Your task to perform on an android device: What is the recent news? Image 0: 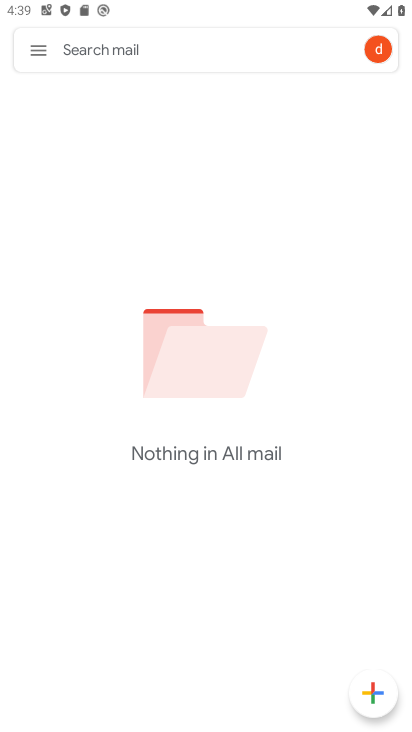
Step 0: press back button
Your task to perform on an android device: What is the recent news? Image 1: 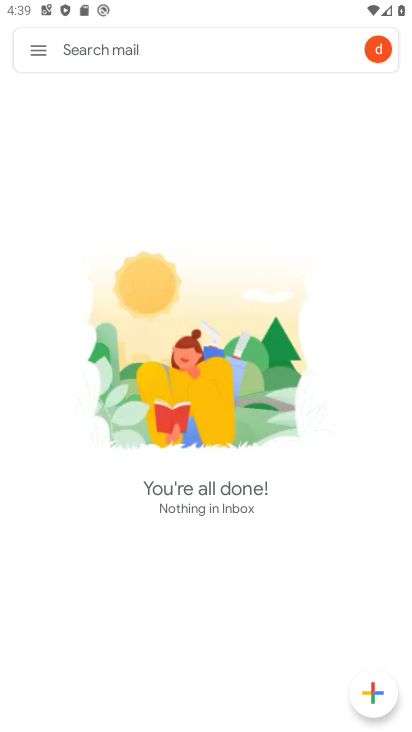
Step 1: press back button
Your task to perform on an android device: What is the recent news? Image 2: 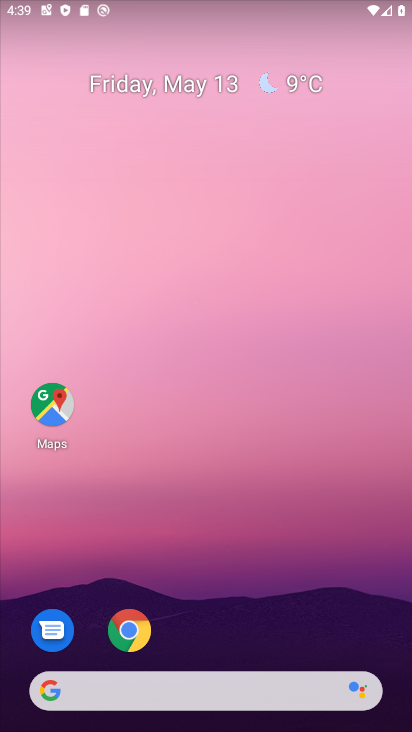
Step 2: drag from (160, 99) to (154, 57)
Your task to perform on an android device: What is the recent news? Image 3: 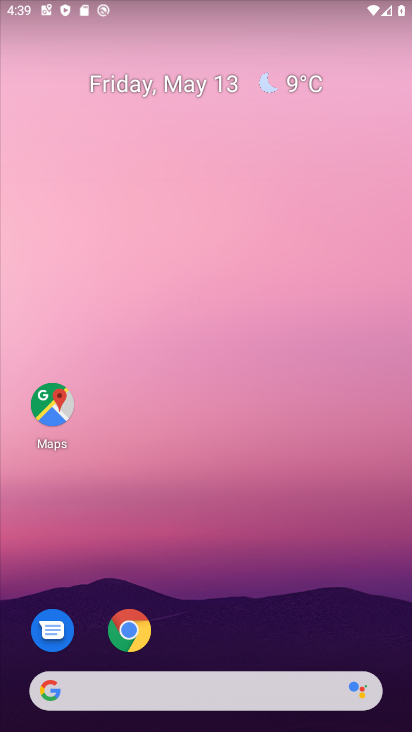
Step 3: drag from (319, 560) to (287, 41)
Your task to perform on an android device: What is the recent news? Image 4: 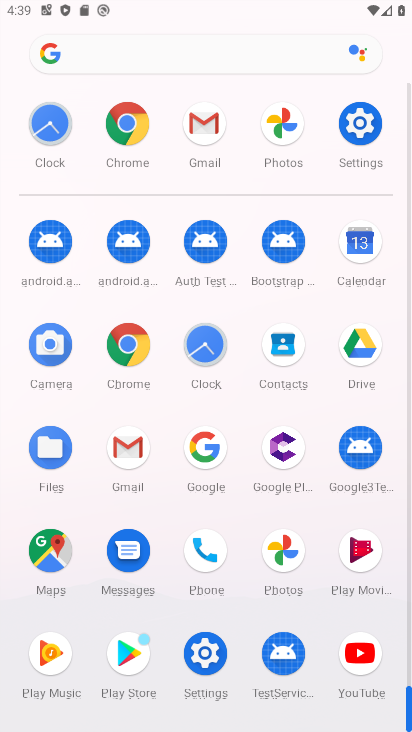
Step 4: drag from (13, 558) to (23, 259)
Your task to perform on an android device: What is the recent news? Image 5: 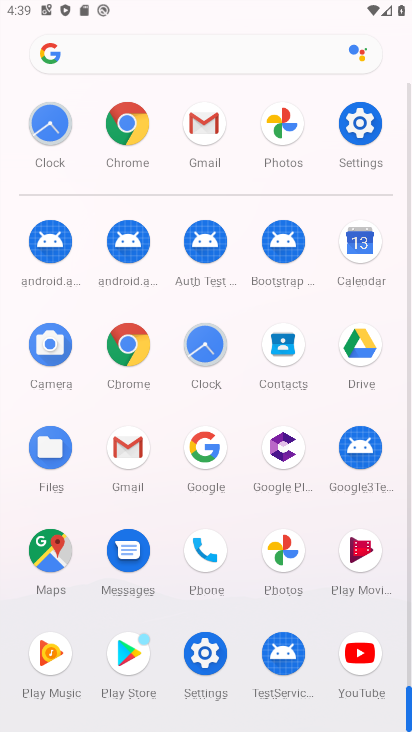
Step 5: click (125, 341)
Your task to perform on an android device: What is the recent news? Image 6: 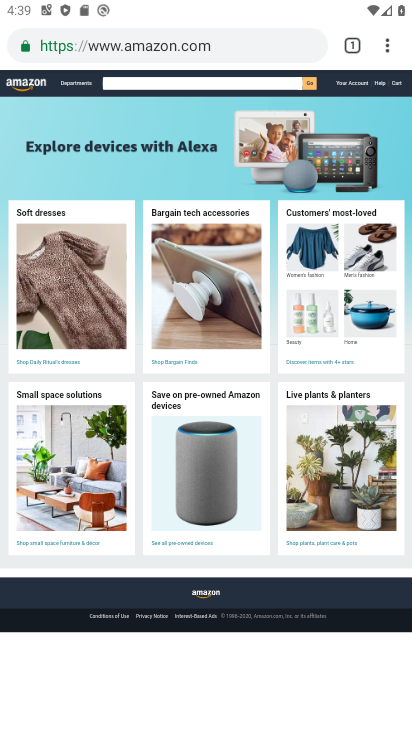
Step 6: click (149, 33)
Your task to perform on an android device: What is the recent news? Image 7: 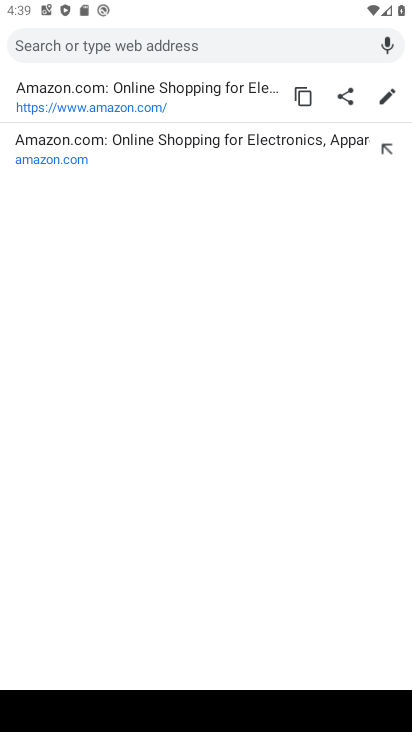
Step 7: type "What is the recent news?"
Your task to perform on an android device: What is the recent news? Image 8: 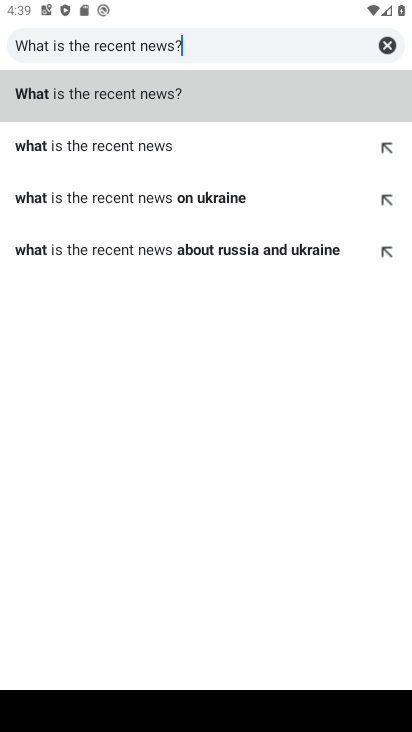
Step 8: type ""
Your task to perform on an android device: What is the recent news? Image 9: 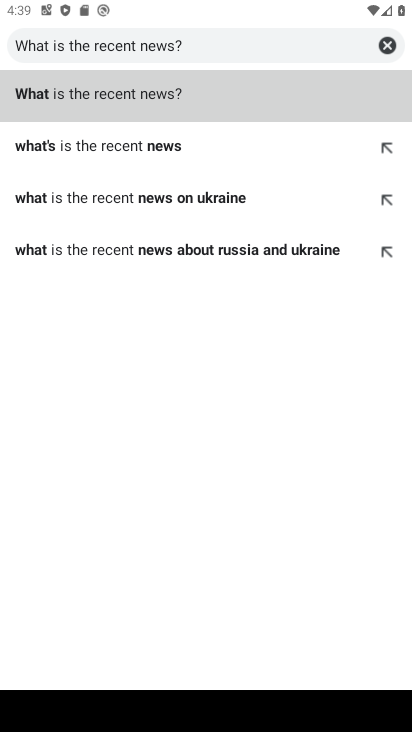
Step 9: click (152, 97)
Your task to perform on an android device: What is the recent news? Image 10: 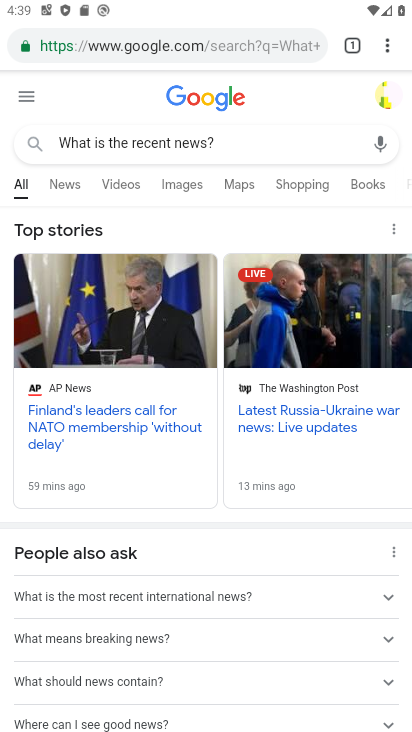
Step 10: task complete